Your task to perform on an android device: Open accessibility settings Image 0: 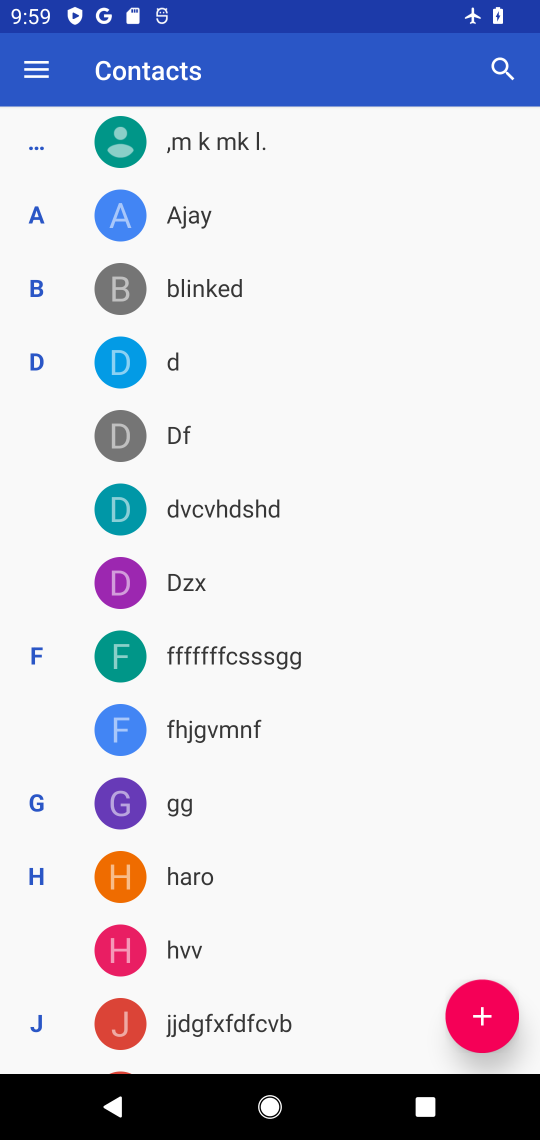
Step 0: press home button
Your task to perform on an android device: Open accessibility settings Image 1: 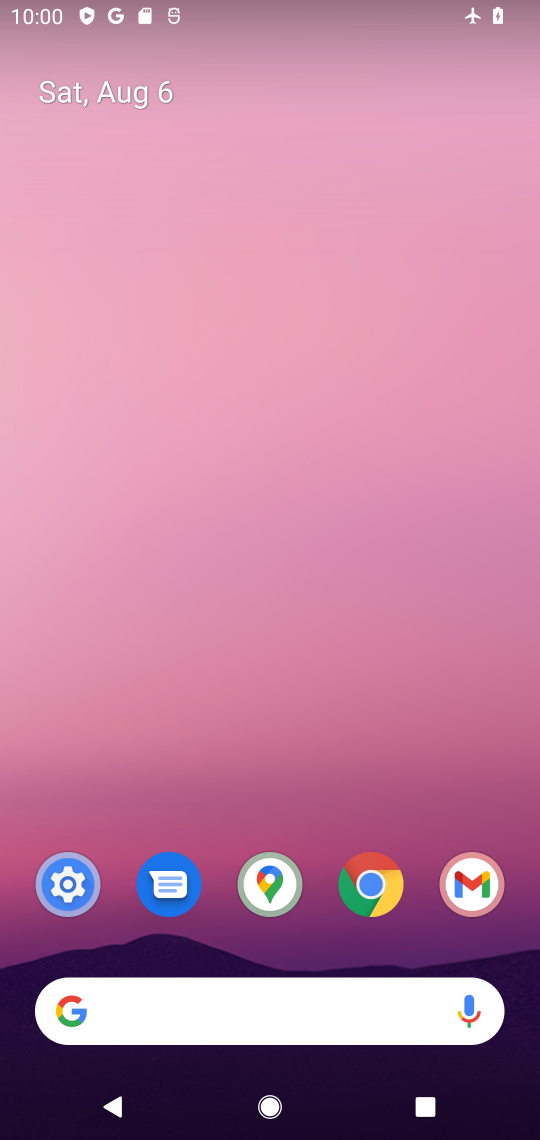
Step 1: click (70, 882)
Your task to perform on an android device: Open accessibility settings Image 2: 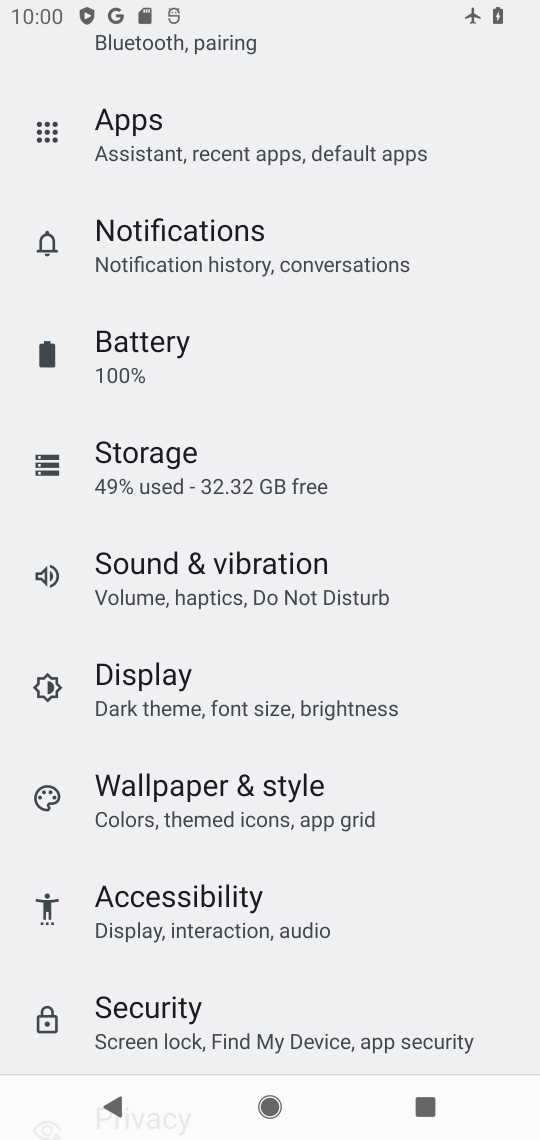
Step 2: click (183, 880)
Your task to perform on an android device: Open accessibility settings Image 3: 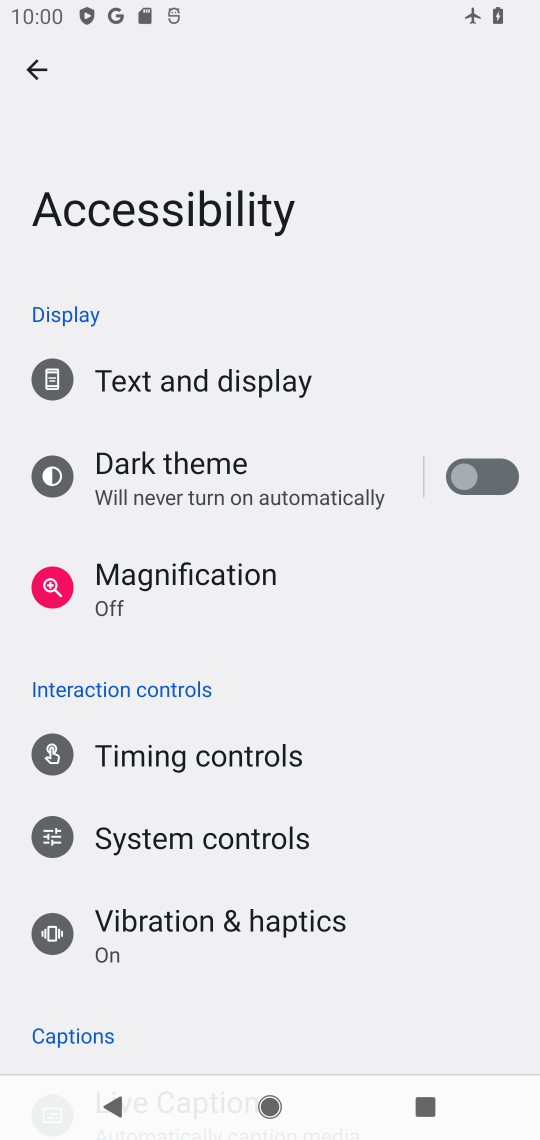
Step 3: task complete